Your task to perform on an android device: Open Google Image 0: 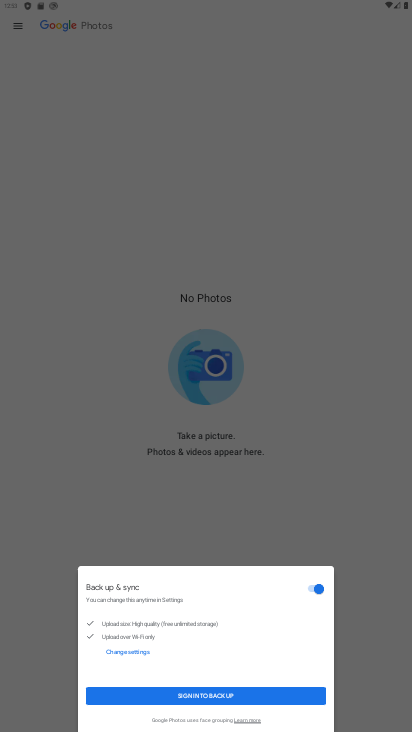
Step 0: press home button
Your task to perform on an android device: Open Google Image 1: 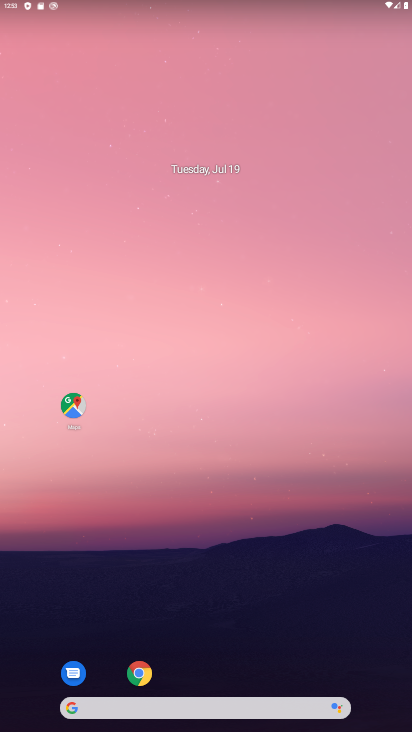
Step 1: click (177, 698)
Your task to perform on an android device: Open Google Image 2: 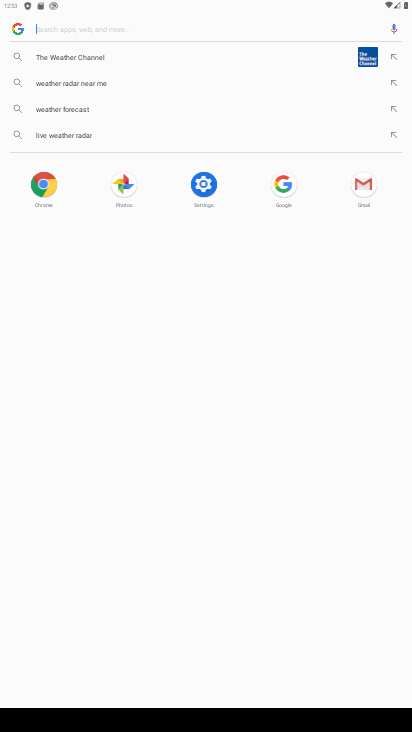
Step 2: task complete